Your task to perform on an android device: delete a single message in the gmail app Image 0: 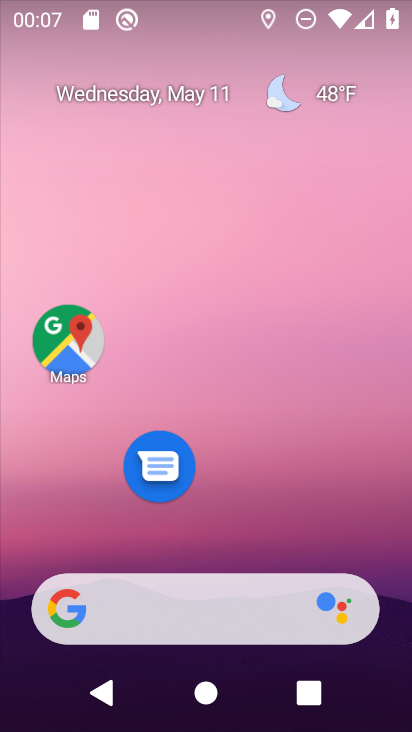
Step 0: drag from (259, 467) to (265, 9)
Your task to perform on an android device: delete a single message in the gmail app Image 1: 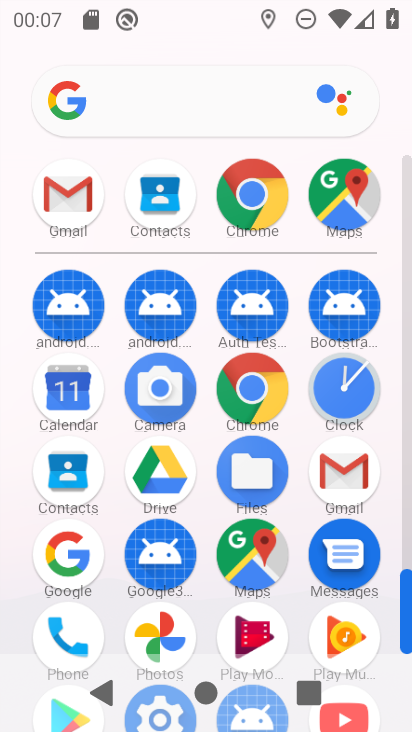
Step 1: click (56, 185)
Your task to perform on an android device: delete a single message in the gmail app Image 2: 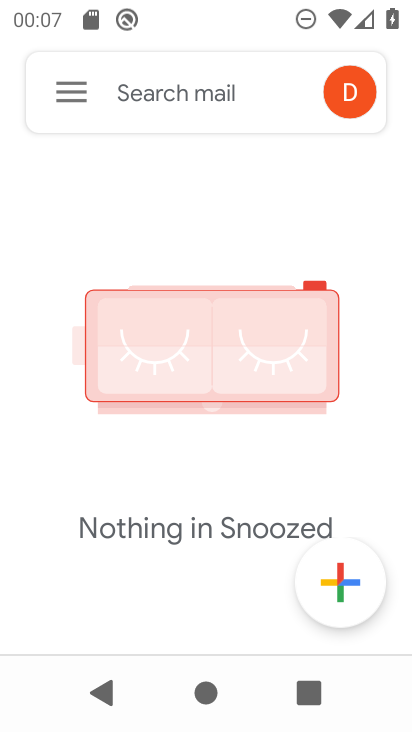
Step 2: click (66, 90)
Your task to perform on an android device: delete a single message in the gmail app Image 3: 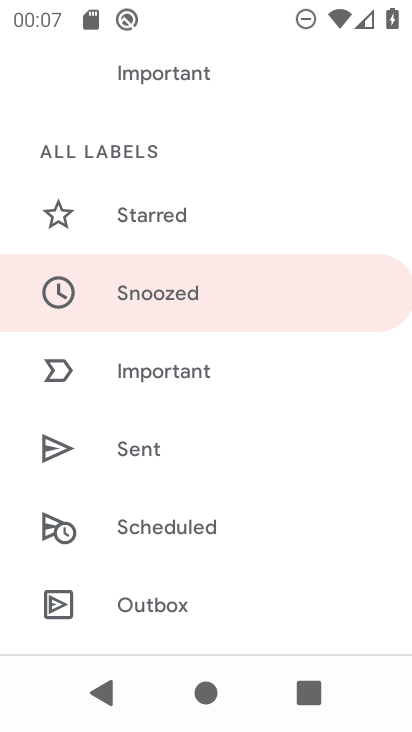
Step 3: drag from (196, 559) to (212, 425)
Your task to perform on an android device: delete a single message in the gmail app Image 4: 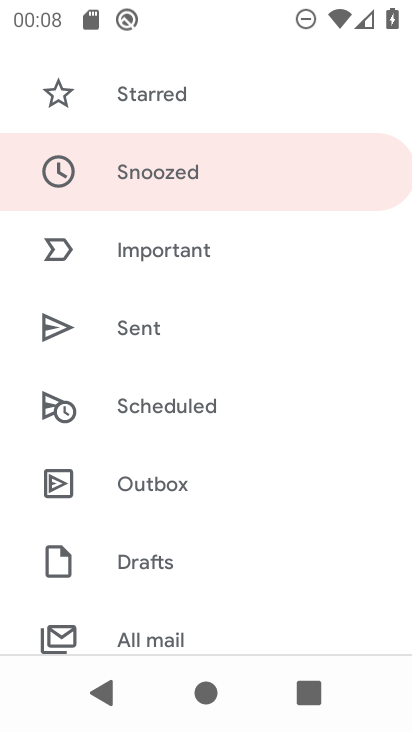
Step 4: drag from (168, 579) to (206, 424)
Your task to perform on an android device: delete a single message in the gmail app Image 5: 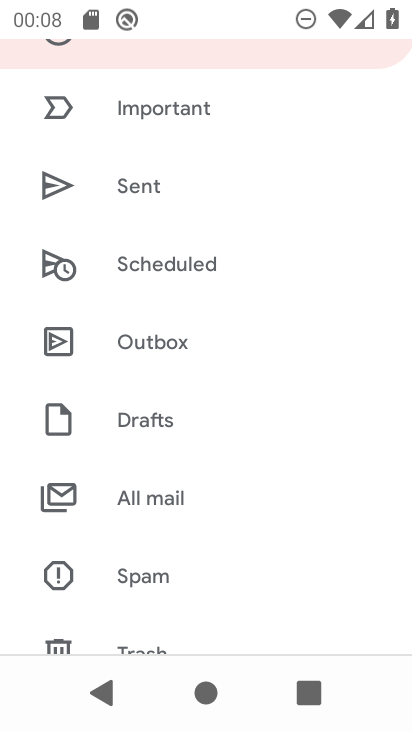
Step 5: click (160, 513)
Your task to perform on an android device: delete a single message in the gmail app Image 6: 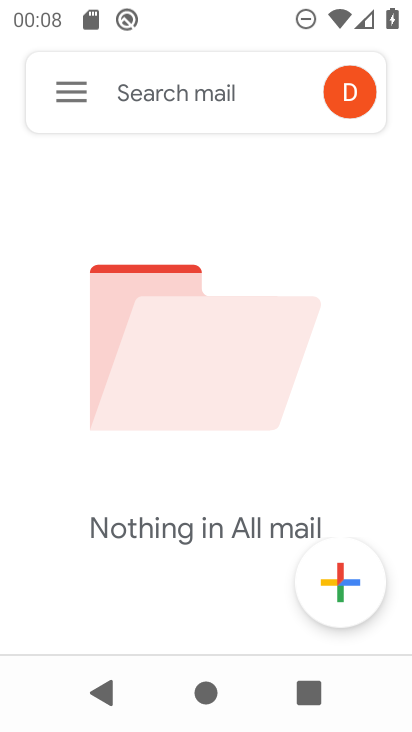
Step 6: task complete